Your task to perform on an android device: Open Yahoo.com Image 0: 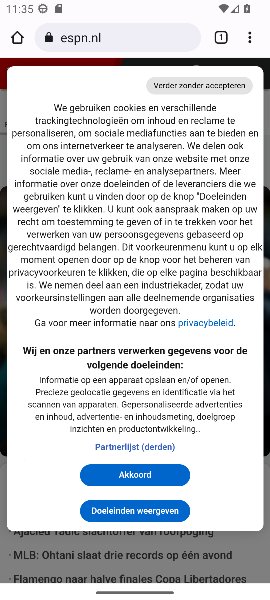
Step 0: task complete